Your task to perform on an android device: turn on wifi Image 0: 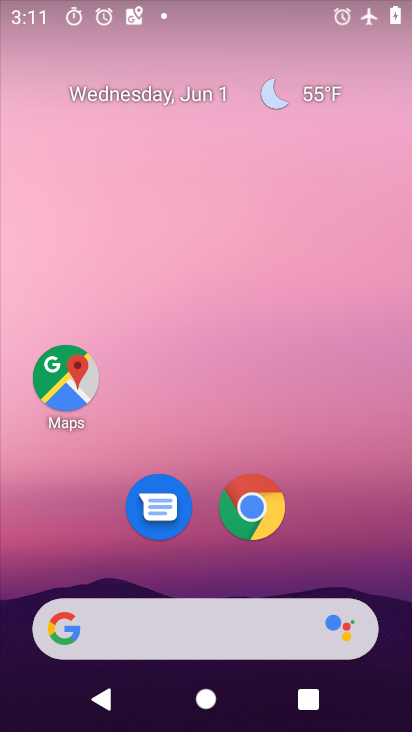
Step 0: drag from (314, 578) to (293, 6)
Your task to perform on an android device: turn on wifi Image 1: 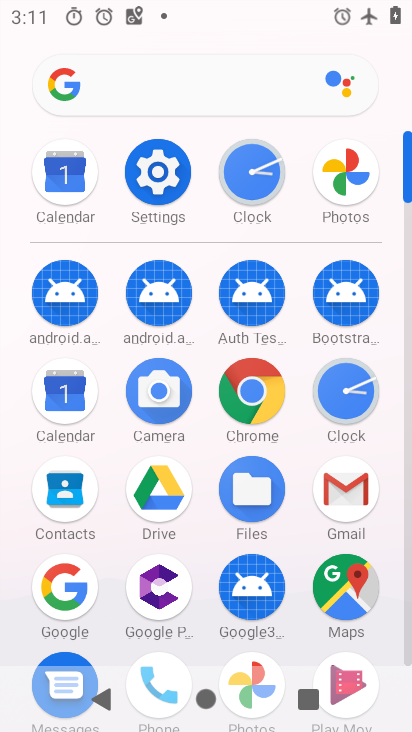
Step 1: click (164, 156)
Your task to perform on an android device: turn on wifi Image 2: 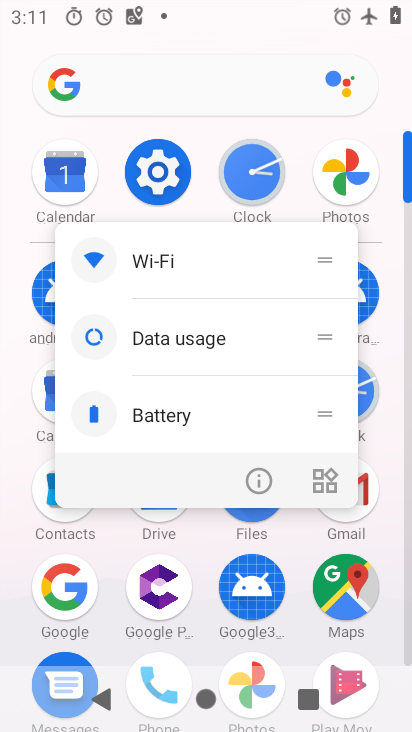
Step 2: click (146, 265)
Your task to perform on an android device: turn on wifi Image 3: 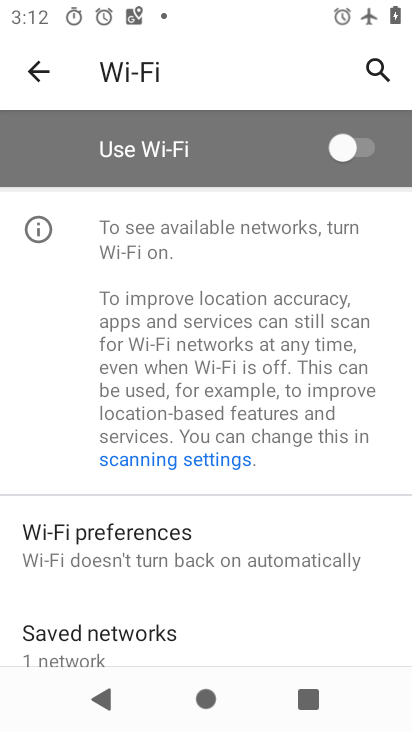
Step 3: click (341, 141)
Your task to perform on an android device: turn on wifi Image 4: 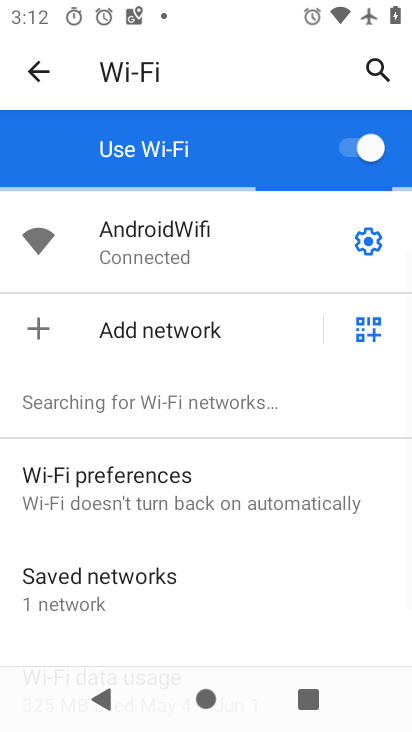
Step 4: task complete